Your task to perform on an android device: Go to notification settings Image 0: 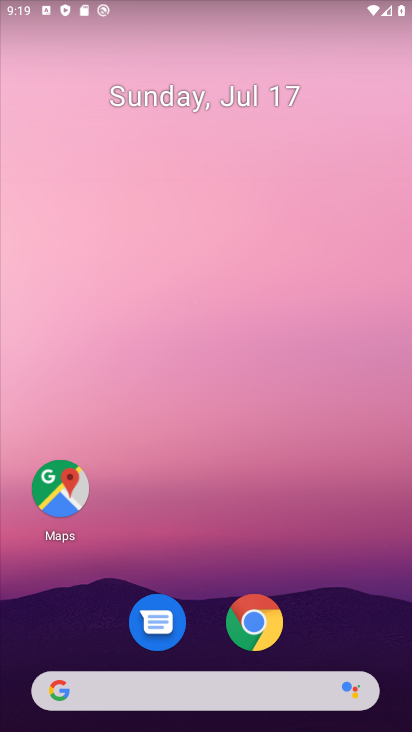
Step 0: drag from (259, 711) to (310, 1)
Your task to perform on an android device: Go to notification settings Image 1: 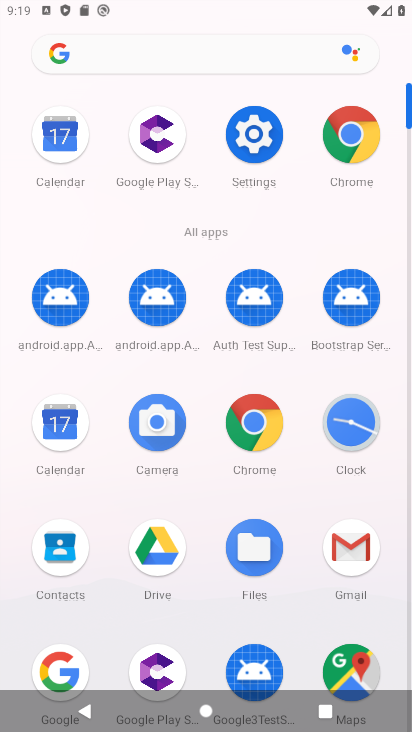
Step 1: click (253, 133)
Your task to perform on an android device: Go to notification settings Image 2: 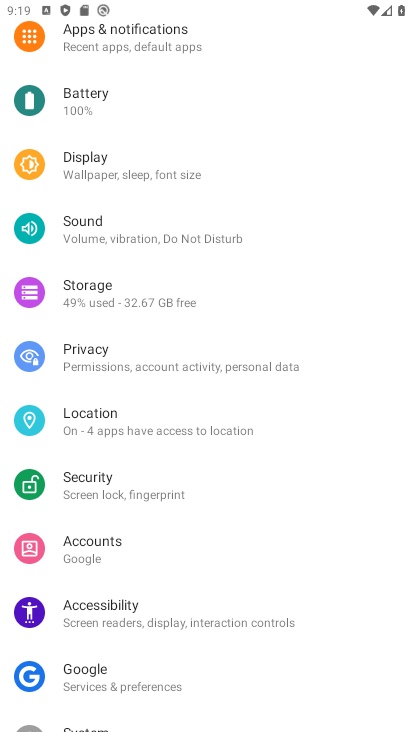
Step 2: click (203, 43)
Your task to perform on an android device: Go to notification settings Image 3: 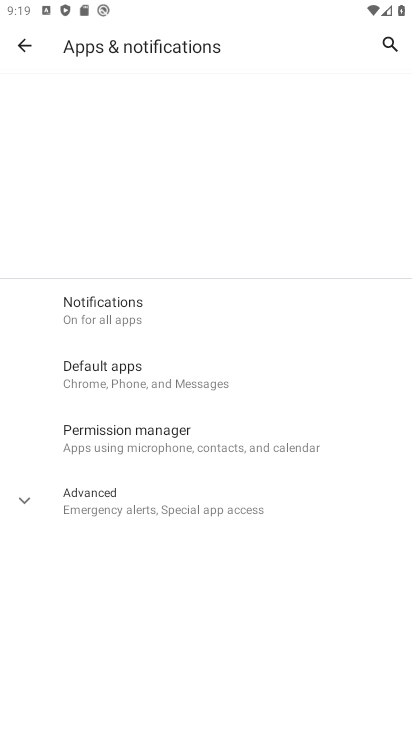
Step 3: task complete